Your task to perform on an android device: open a new tab in the chrome app Image 0: 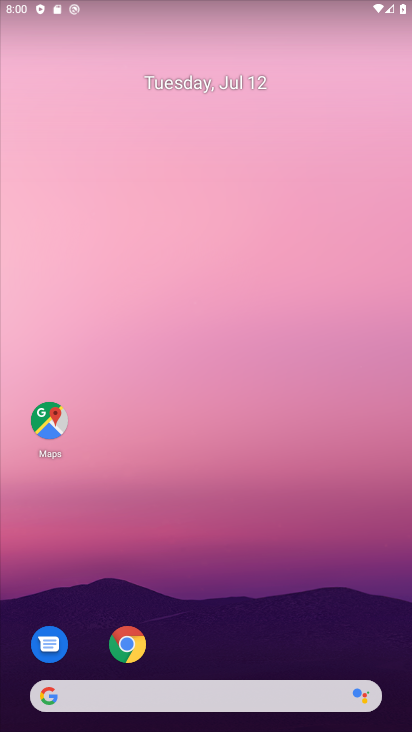
Step 0: click (105, 698)
Your task to perform on an android device: open a new tab in the chrome app Image 1: 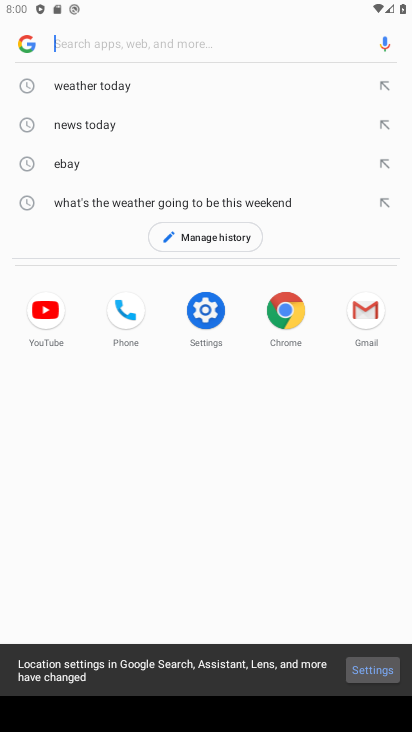
Step 1: click (277, 318)
Your task to perform on an android device: open a new tab in the chrome app Image 2: 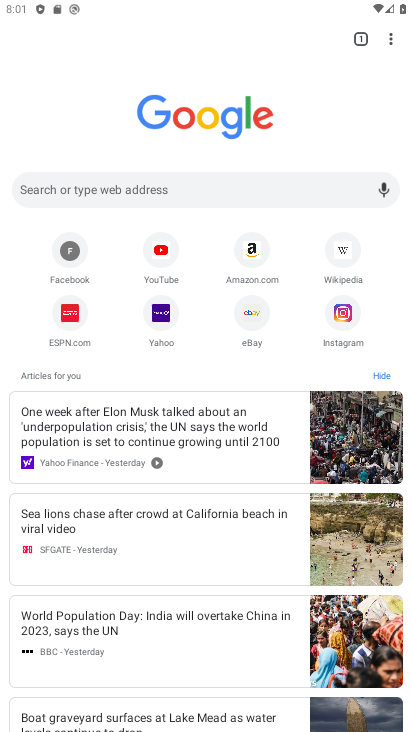
Step 2: click (144, 186)
Your task to perform on an android device: open a new tab in the chrome app Image 3: 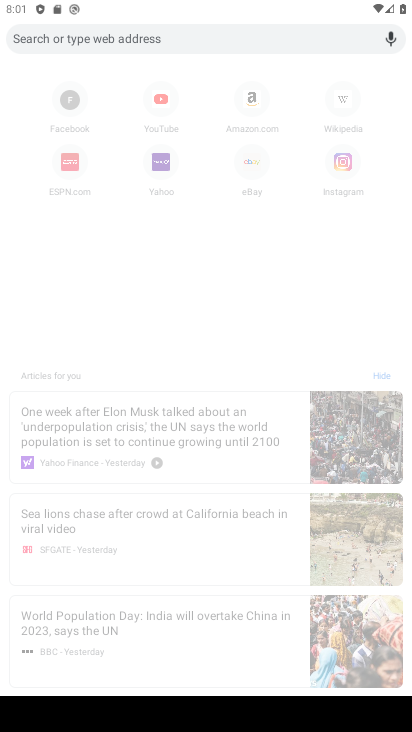
Step 3: click (71, 29)
Your task to perform on an android device: open a new tab in the chrome app Image 4: 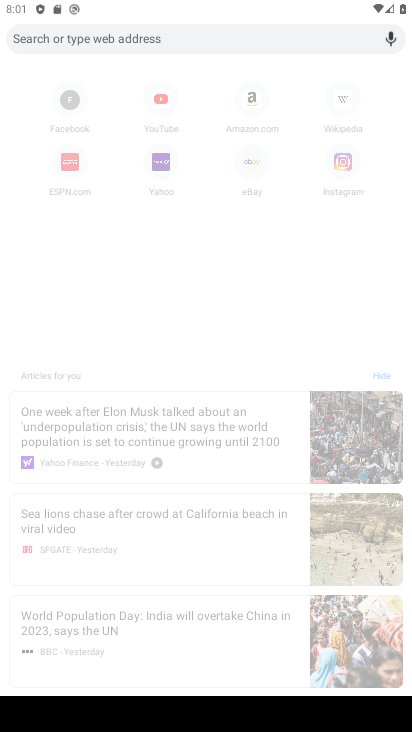
Step 4: click (154, 308)
Your task to perform on an android device: open a new tab in the chrome app Image 5: 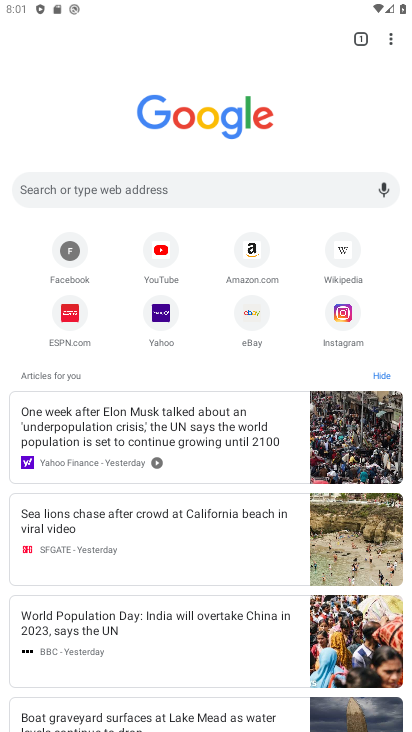
Step 5: click (388, 41)
Your task to perform on an android device: open a new tab in the chrome app Image 6: 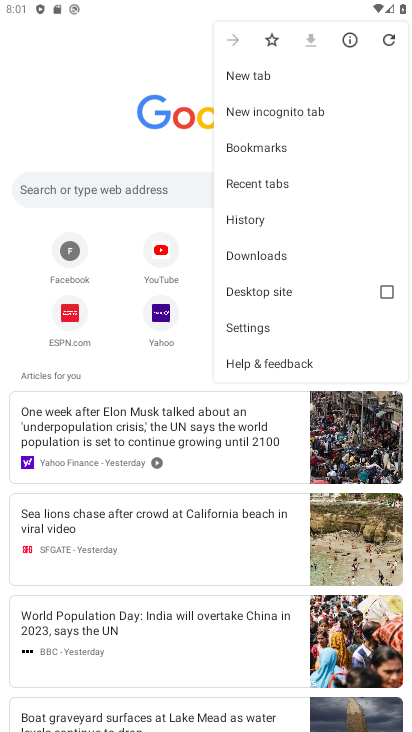
Step 6: click (256, 68)
Your task to perform on an android device: open a new tab in the chrome app Image 7: 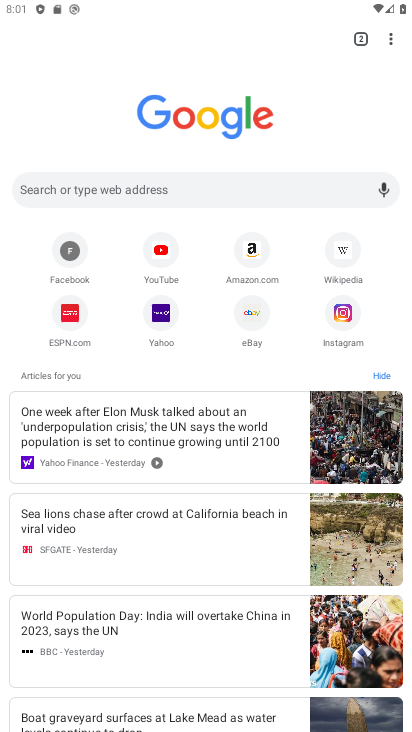
Step 7: task complete